Your task to perform on an android device: Find coffee shops on Maps Image 0: 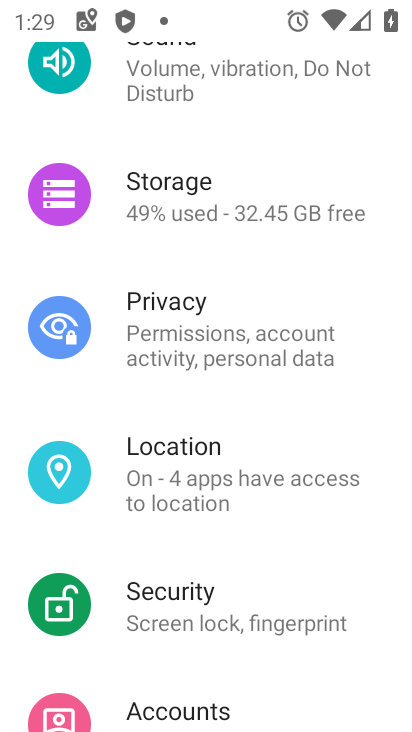
Step 0: press home button
Your task to perform on an android device: Find coffee shops on Maps Image 1: 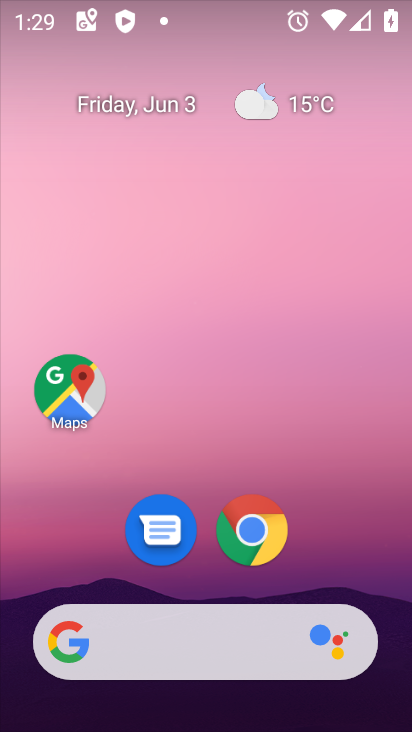
Step 1: click (61, 402)
Your task to perform on an android device: Find coffee shops on Maps Image 2: 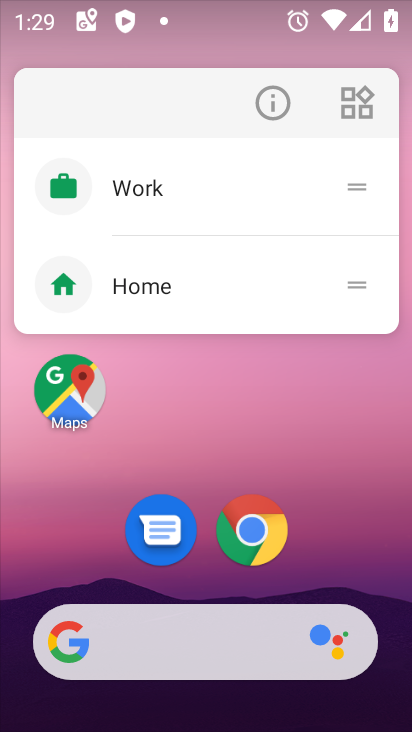
Step 2: click (61, 382)
Your task to perform on an android device: Find coffee shops on Maps Image 3: 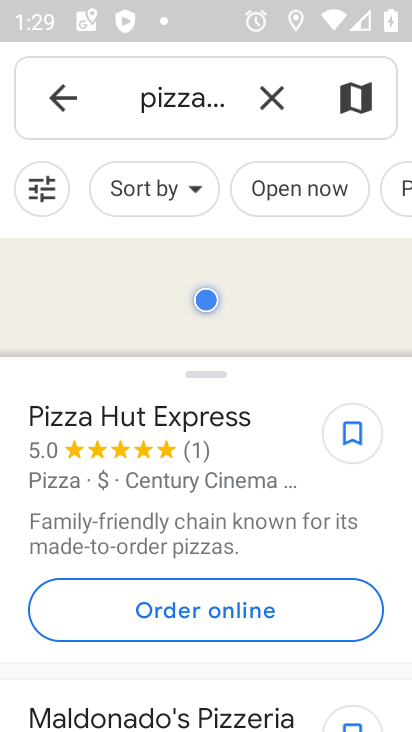
Step 3: click (274, 93)
Your task to perform on an android device: Find coffee shops on Maps Image 4: 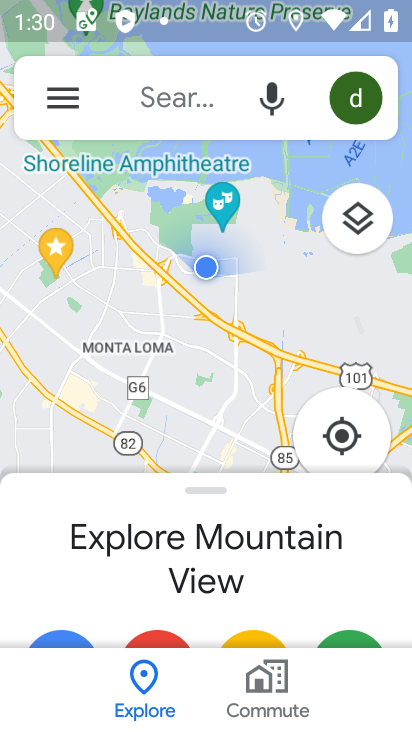
Step 4: click (181, 97)
Your task to perform on an android device: Find coffee shops on Maps Image 5: 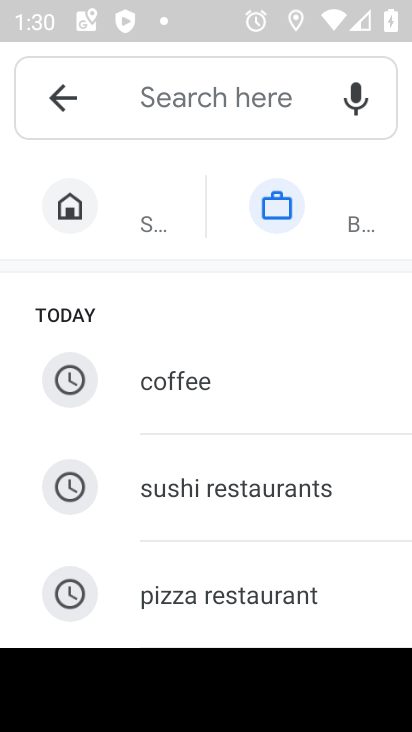
Step 5: type "coffee shops"
Your task to perform on an android device: Find coffee shops on Maps Image 6: 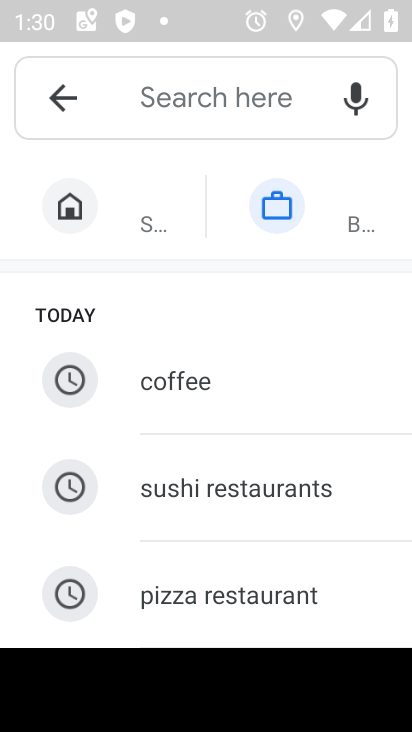
Step 6: click (224, 103)
Your task to perform on an android device: Find coffee shops on Maps Image 7: 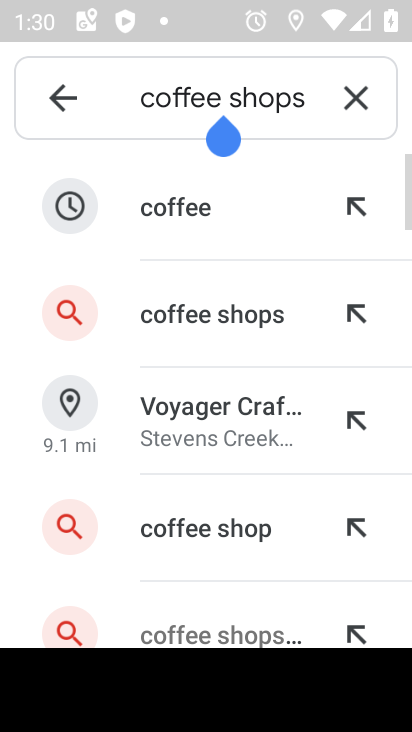
Step 7: click (200, 309)
Your task to perform on an android device: Find coffee shops on Maps Image 8: 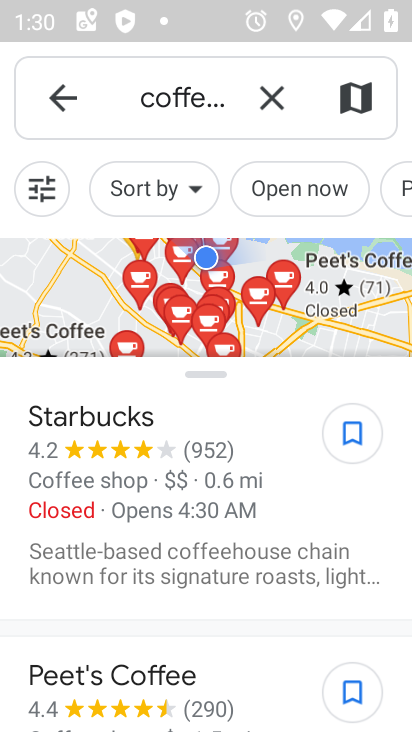
Step 8: task complete